Your task to perform on an android device: change your default location settings in chrome Image 0: 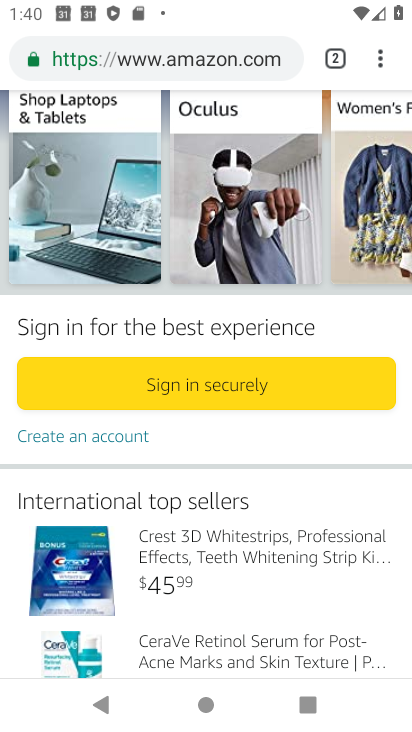
Step 0: drag from (226, 557) to (318, 81)
Your task to perform on an android device: change your default location settings in chrome Image 1: 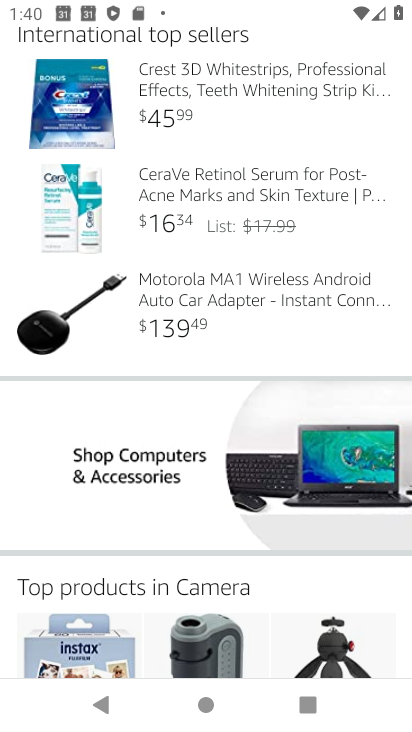
Step 1: press home button
Your task to perform on an android device: change your default location settings in chrome Image 2: 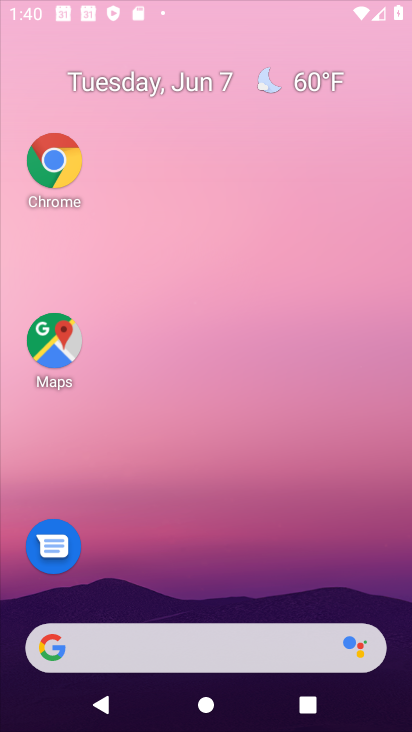
Step 2: drag from (204, 537) to (158, 18)
Your task to perform on an android device: change your default location settings in chrome Image 3: 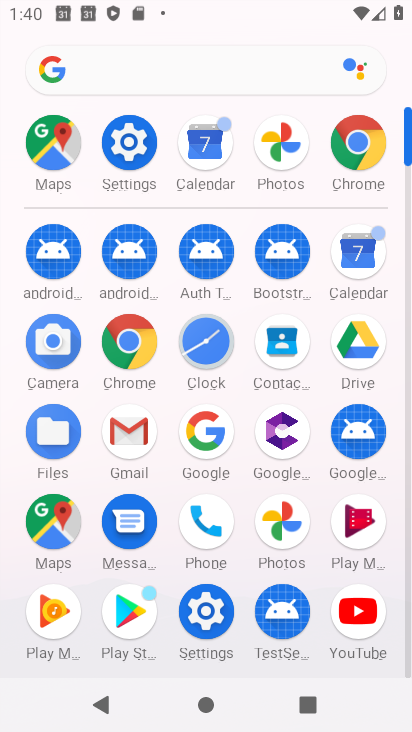
Step 3: click (118, 342)
Your task to perform on an android device: change your default location settings in chrome Image 4: 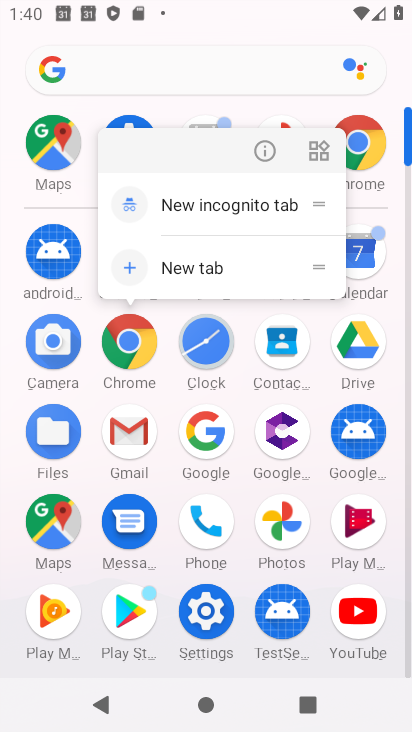
Step 4: click (262, 154)
Your task to perform on an android device: change your default location settings in chrome Image 5: 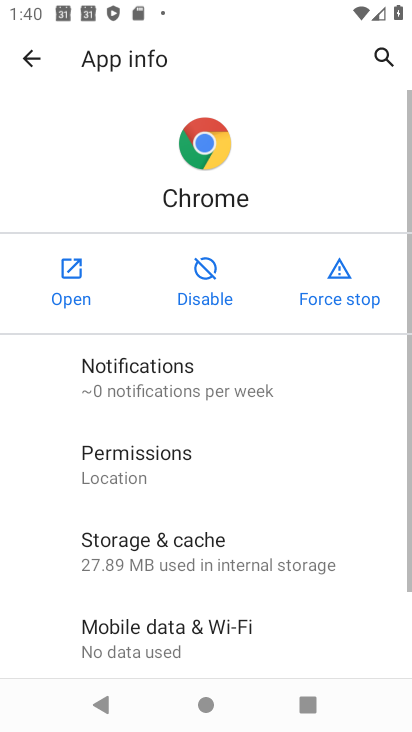
Step 5: click (69, 262)
Your task to perform on an android device: change your default location settings in chrome Image 6: 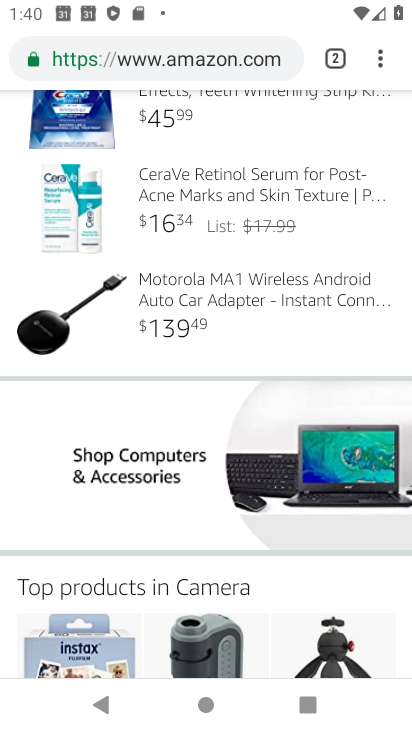
Step 6: drag from (381, 61) to (215, 563)
Your task to perform on an android device: change your default location settings in chrome Image 7: 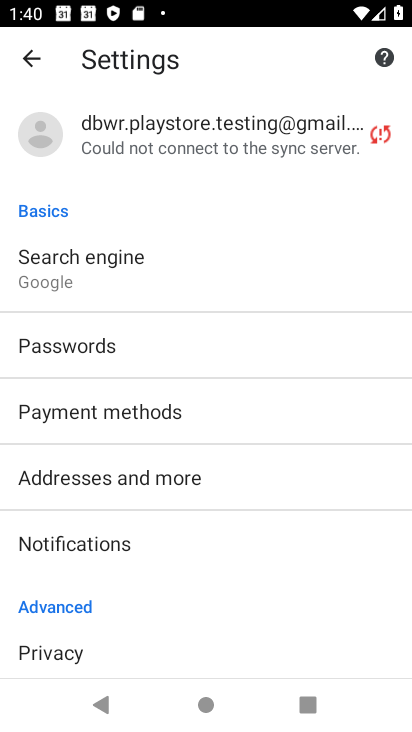
Step 7: drag from (211, 550) to (211, 187)
Your task to perform on an android device: change your default location settings in chrome Image 8: 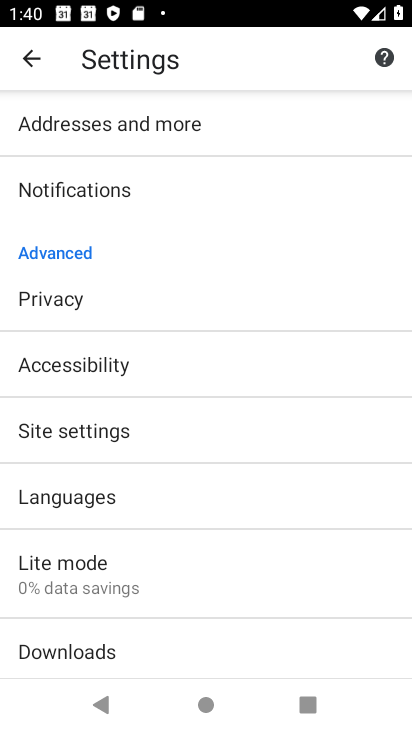
Step 8: click (103, 426)
Your task to perform on an android device: change your default location settings in chrome Image 9: 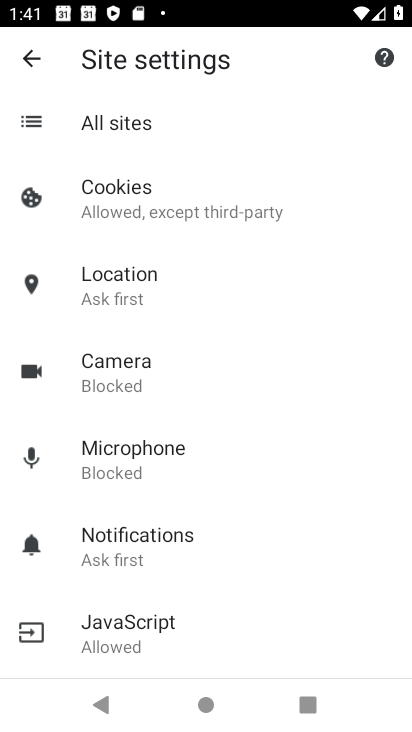
Step 9: click (159, 289)
Your task to perform on an android device: change your default location settings in chrome Image 10: 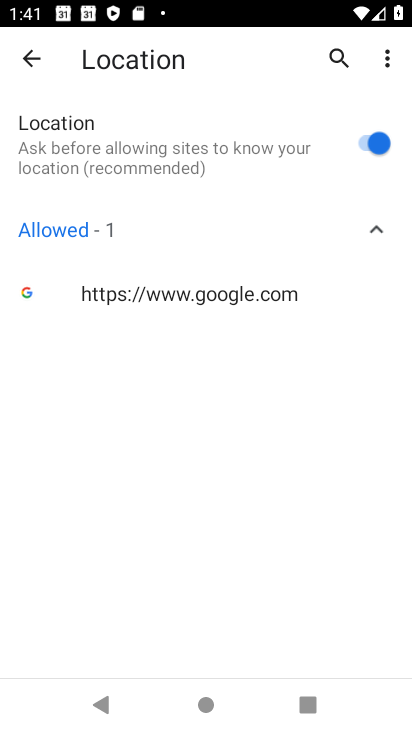
Step 10: drag from (164, 391) to (251, 70)
Your task to perform on an android device: change your default location settings in chrome Image 11: 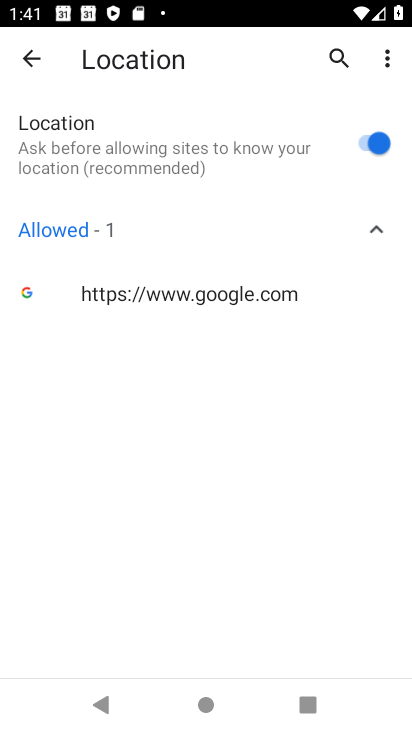
Step 11: click (368, 136)
Your task to perform on an android device: change your default location settings in chrome Image 12: 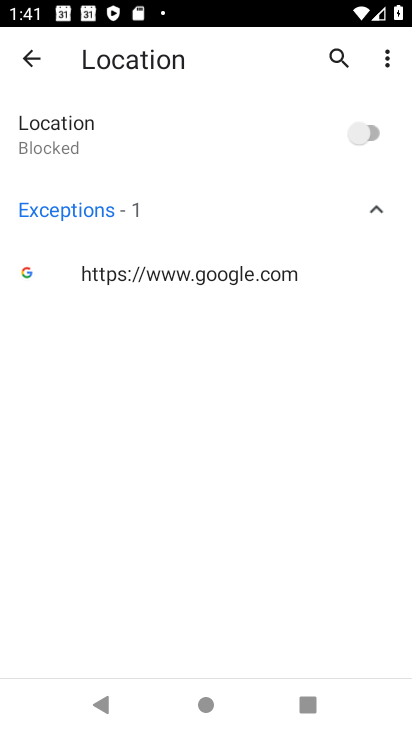
Step 12: task complete